Your task to perform on an android device: toggle show notifications on the lock screen Image 0: 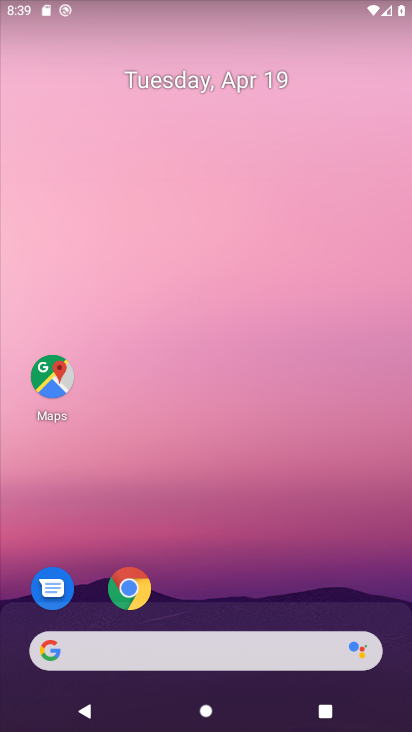
Step 0: drag from (224, 597) to (212, 76)
Your task to perform on an android device: toggle show notifications on the lock screen Image 1: 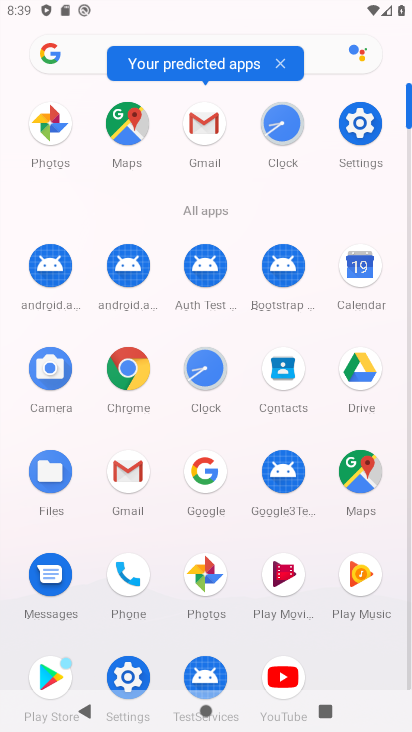
Step 1: click (128, 660)
Your task to perform on an android device: toggle show notifications on the lock screen Image 2: 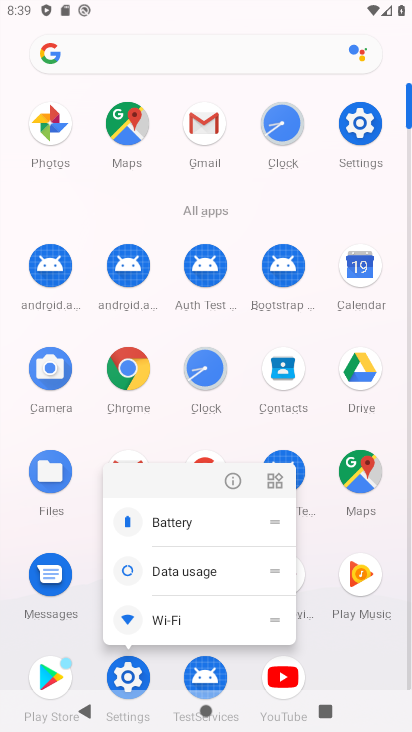
Step 2: click (127, 667)
Your task to perform on an android device: toggle show notifications on the lock screen Image 3: 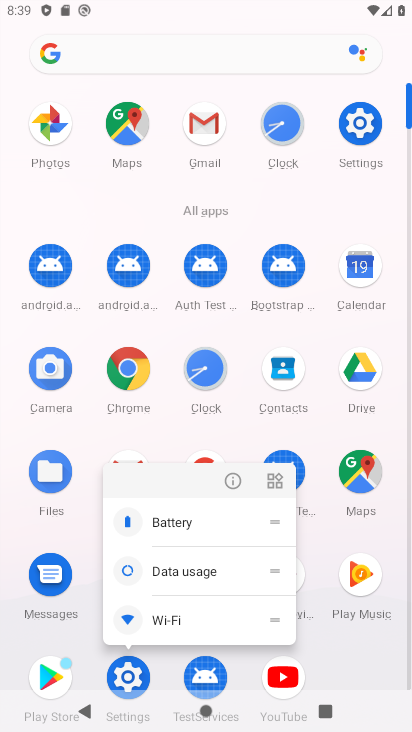
Step 3: click (123, 676)
Your task to perform on an android device: toggle show notifications on the lock screen Image 4: 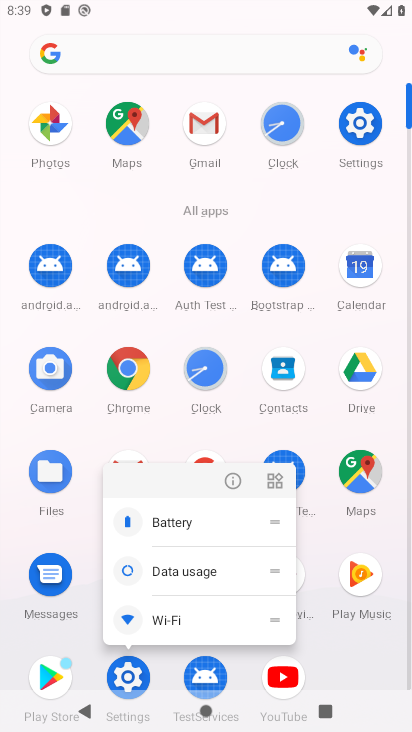
Step 4: click (123, 675)
Your task to perform on an android device: toggle show notifications on the lock screen Image 5: 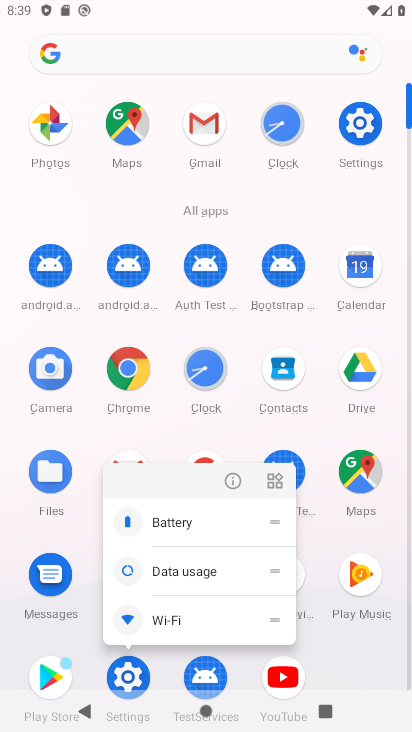
Step 5: click (330, 202)
Your task to perform on an android device: toggle show notifications on the lock screen Image 6: 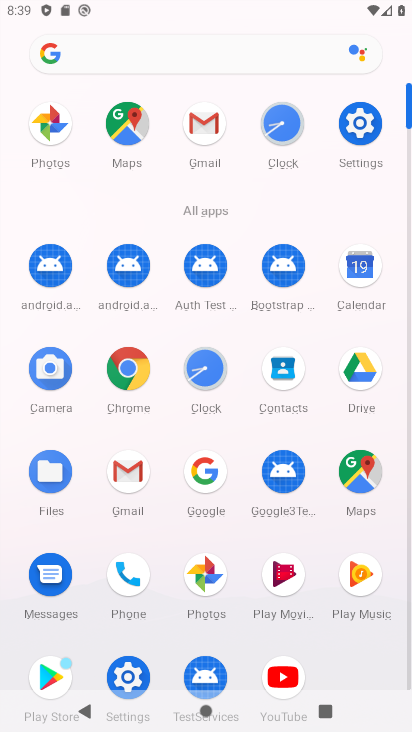
Step 6: click (361, 119)
Your task to perform on an android device: toggle show notifications on the lock screen Image 7: 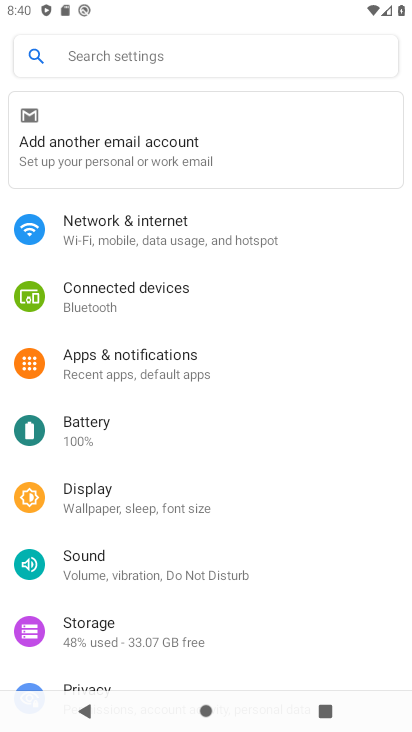
Step 7: click (181, 358)
Your task to perform on an android device: toggle show notifications on the lock screen Image 8: 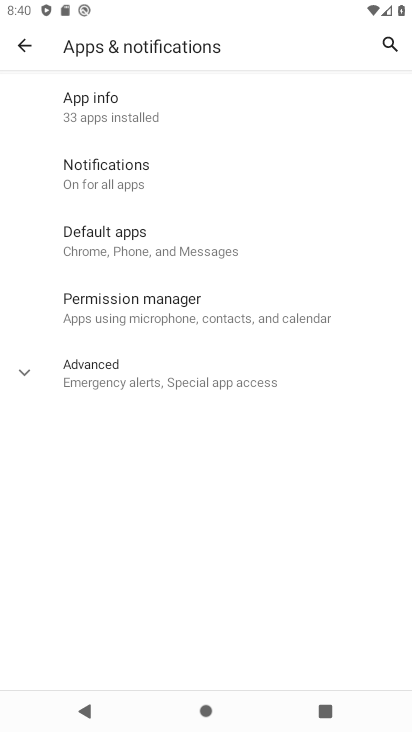
Step 8: click (154, 175)
Your task to perform on an android device: toggle show notifications on the lock screen Image 9: 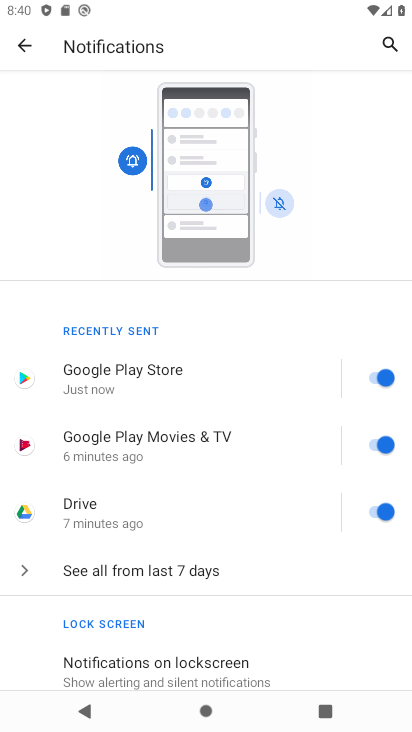
Step 9: click (262, 655)
Your task to perform on an android device: toggle show notifications on the lock screen Image 10: 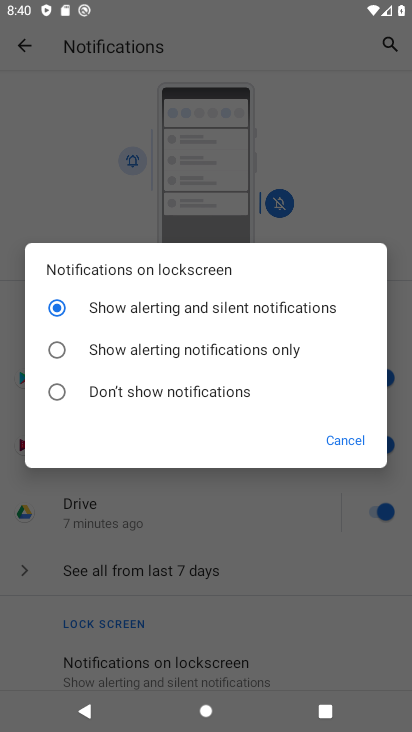
Step 10: click (53, 353)
Your task to perform on an android device: toggle show notifications on the lock screen Image 11: 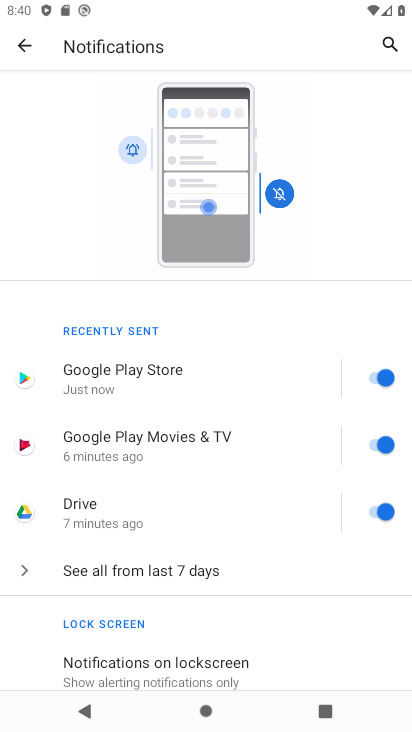
Step 11: task complete